Your task to perform on an android device: Go to Google Image 0: 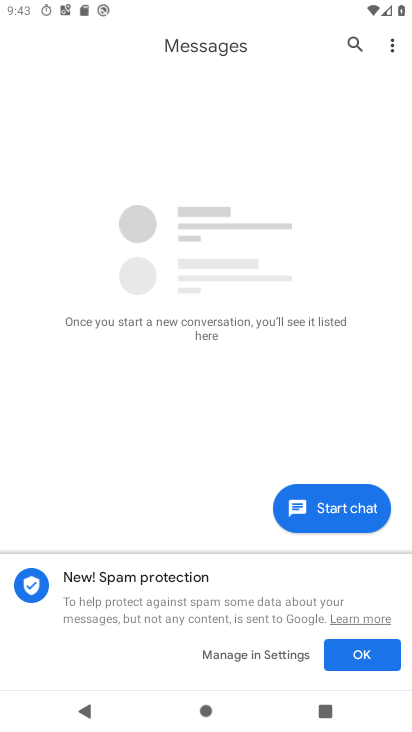
Step 0: press home button
Your task to perform on an android device: Go to Google Image 1: 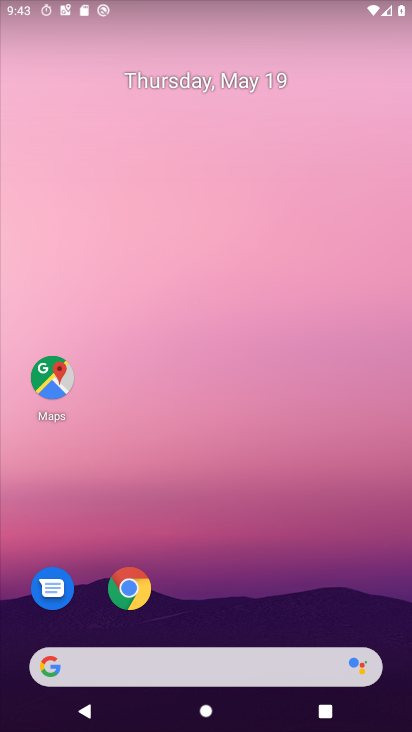
Step 1: drag from (198, 662) to (291, 178)
Your task to perform on an android device: Go to Google Image 2: 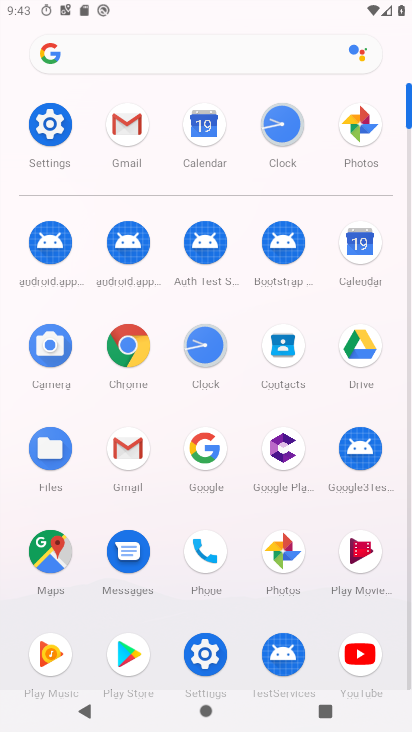
Step 2: click (213, 449)
Your task to perform on an android device: Go to Google Image 3: 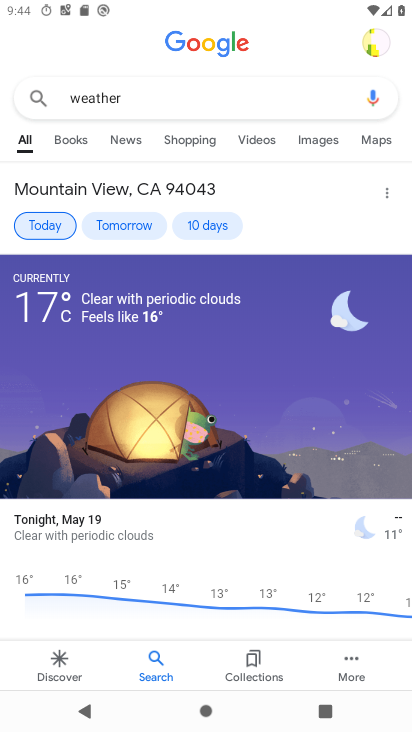
Step 3: task complete